Your task to perform on an android device: Open Google Maps and go to "Timeline" Image 0: 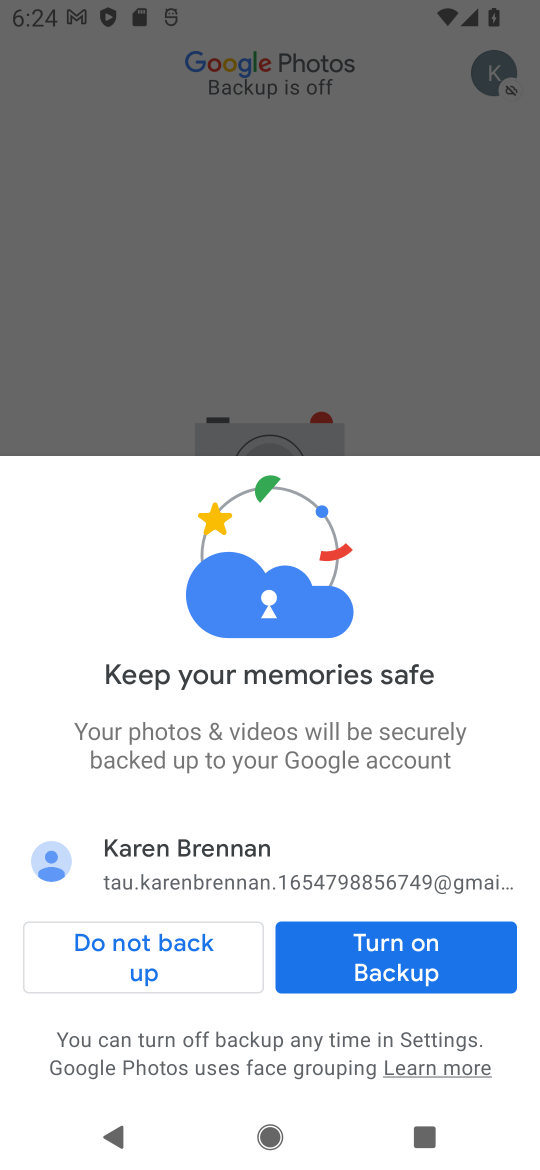
Step 0: press home button
Your task to perform on an android device: Open Google Maps and go to "Timeline" Image 1: 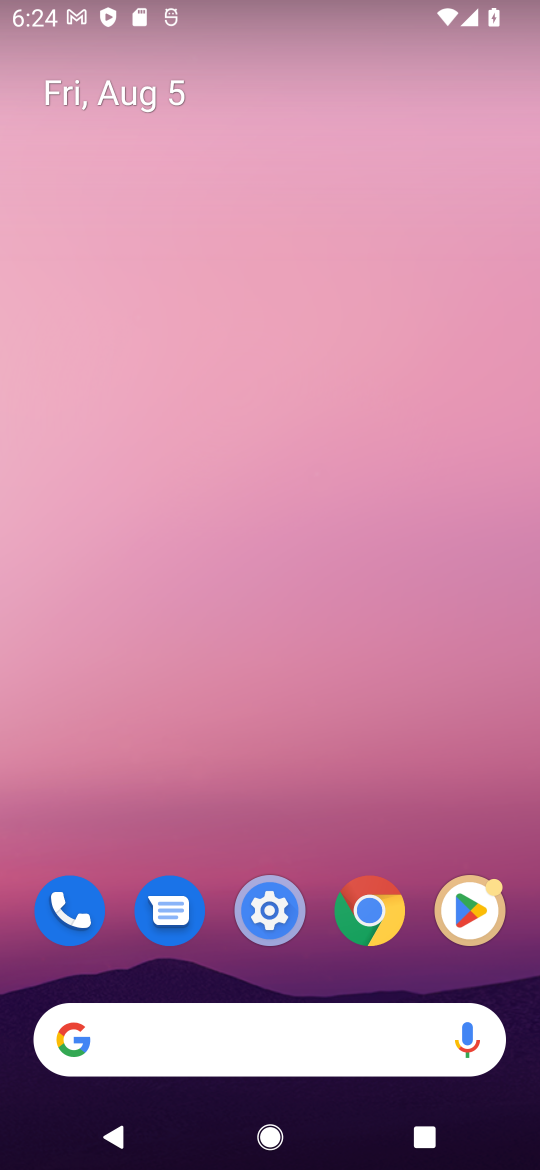
Step 1: drag from (319, 1042) to (323, 3)
Your task to perform on an android device: Open Google Maps and go to "Timeline" Image 2: 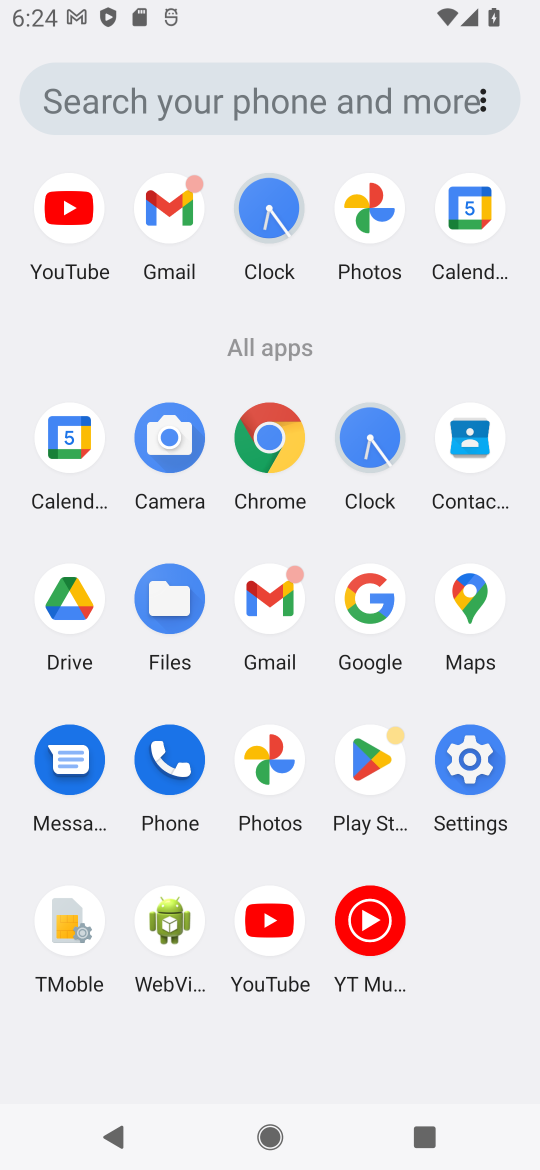
Step 2: click (484, 563)
Your task to perform on an android device: Open Google Maps and go to "Timeline" Image 3: 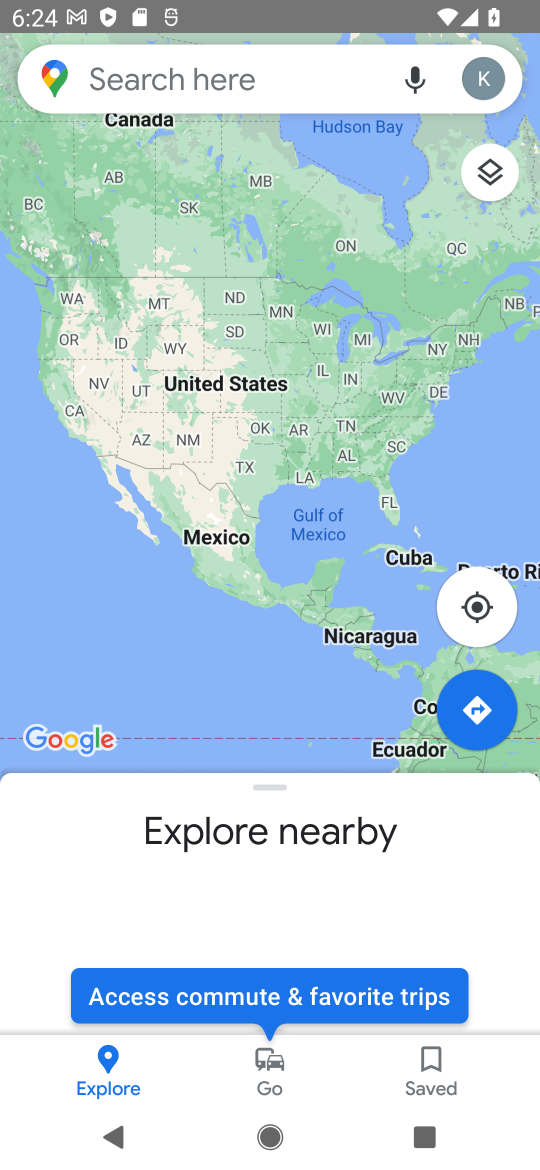
Step 3: click (478, 78)
Your task to perform on an android device: Open Google Maps and go to "Timeline" Image 4: 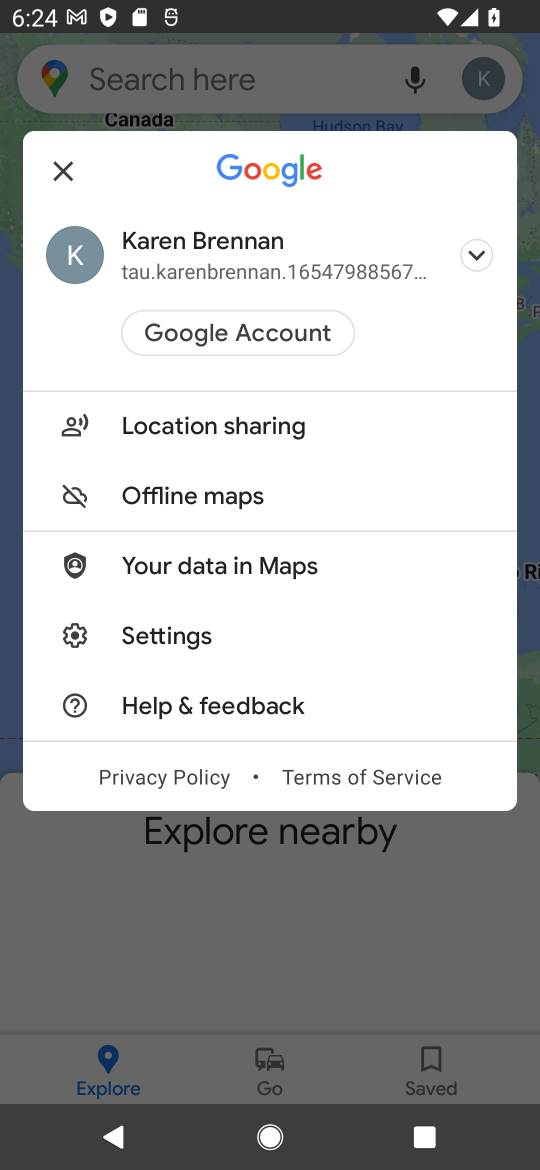
Step 4: task complete